Your task to perform on an android device: change the clock display to analog Image 0: 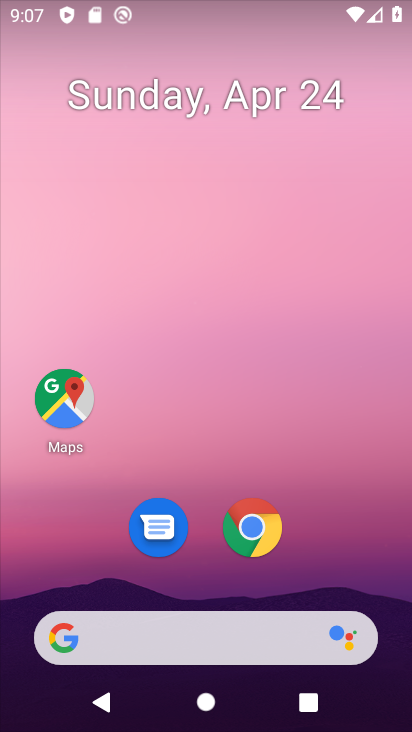
Step 0: drag from (210, 551) to (260, 81)
Your task to perform on an android device: change the clock display to analog Image 1: 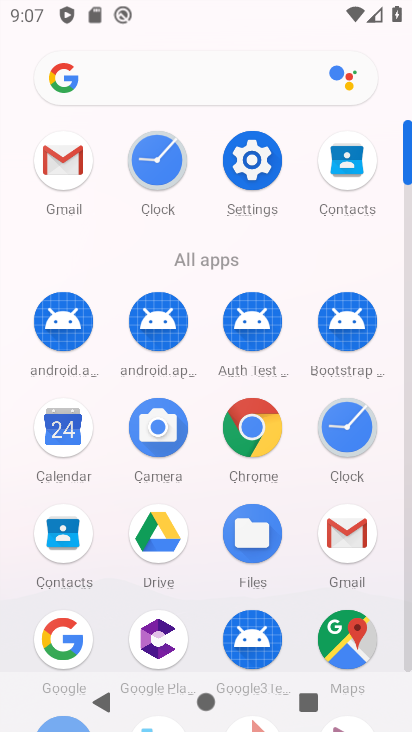
Step 1: click (166, 167)
Your task to perform on an android device: change the clock display to analog Image 2: 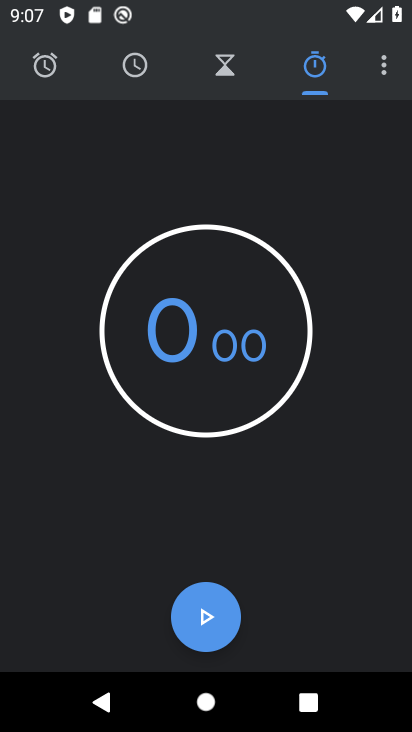
Step 2: drag from (382, 61) to (309, 201)
Your task to perform on an android device: change the clock display to analog Image 3: 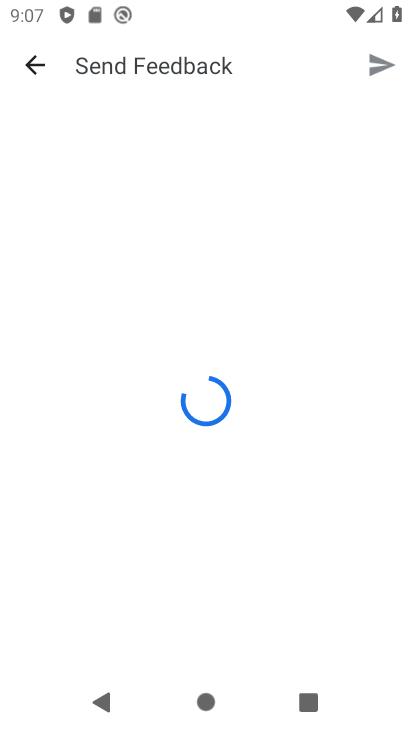
Step 3: click (34, 62)
Your task to perform on an android device: change the clock display to analog Image 4: 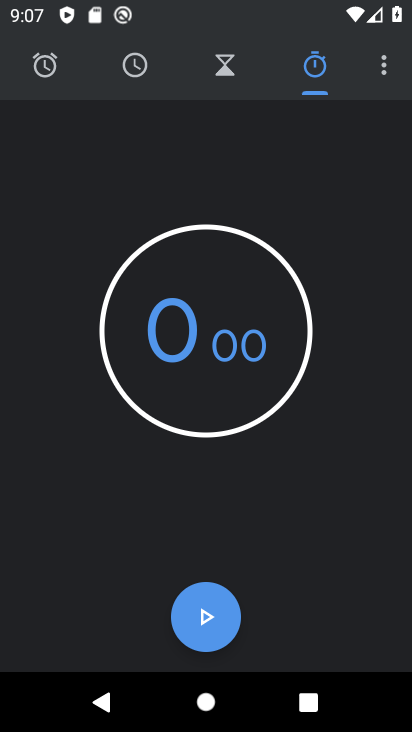
Step 4: click (385, 59)
Your task to perform on an android device: change the clock display to analog Image 5: 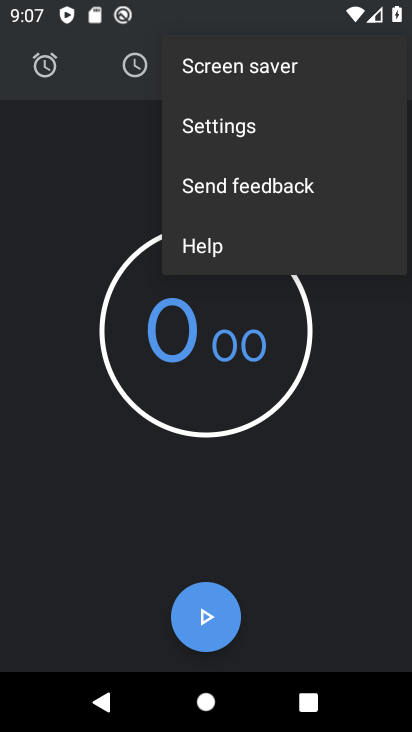
Step 5: click (209, 131)
Your task to perform on an android device: change the clock display to analog Image 6: 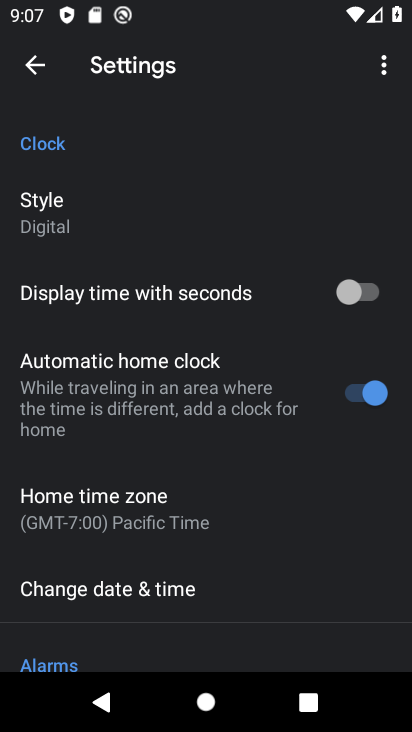
Step 6: click (69, 205)
Your task to perform on an android device: change the clock display to analog Image 7: 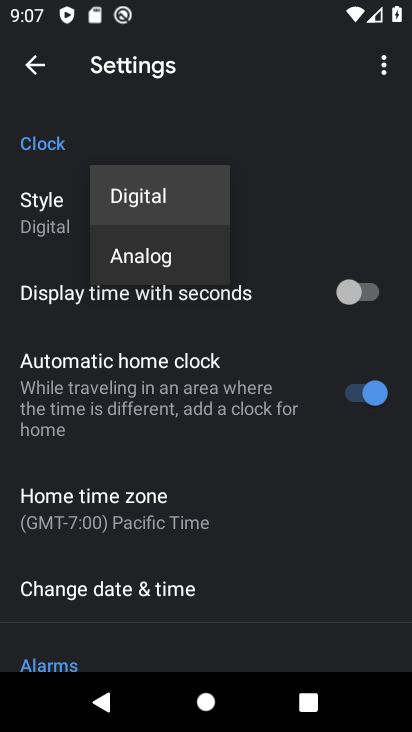
Step 7: click (157, 259)
Your task to perform on an android device: change the clock display to analog Image 8: 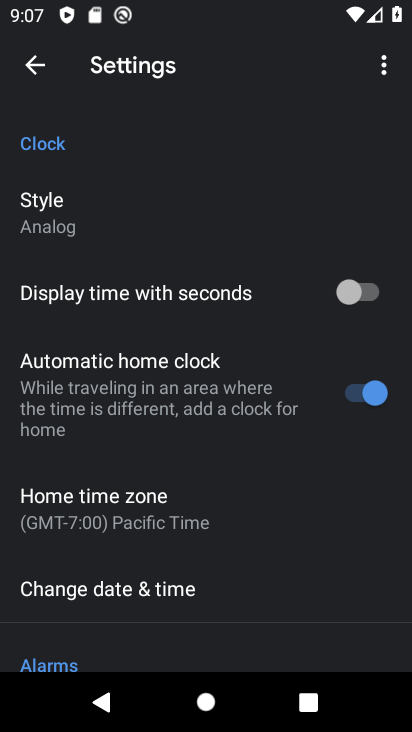
Step 8: task complete